Your task to perform on an android device: Open Amazon Image 0: 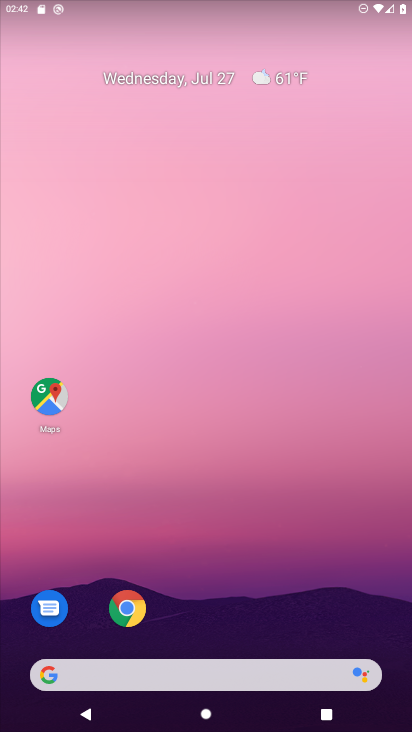
Step 0: click (133, 616)
Your task to perform on an android device: Open Amazon Image 1: 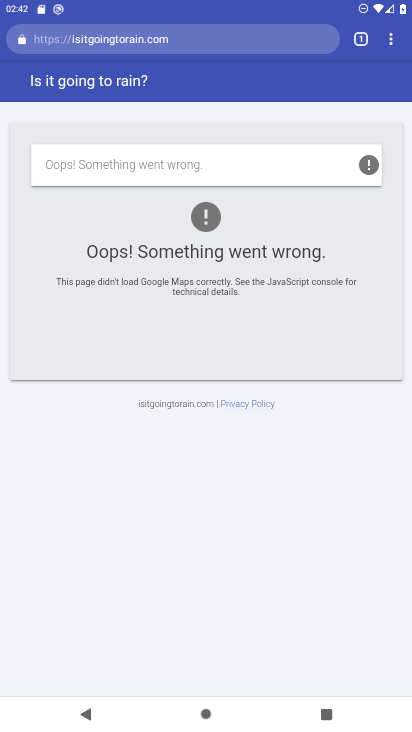
Step 1: click (366, 46)
Your task to perform on an android device: Open Amazon Image 2: 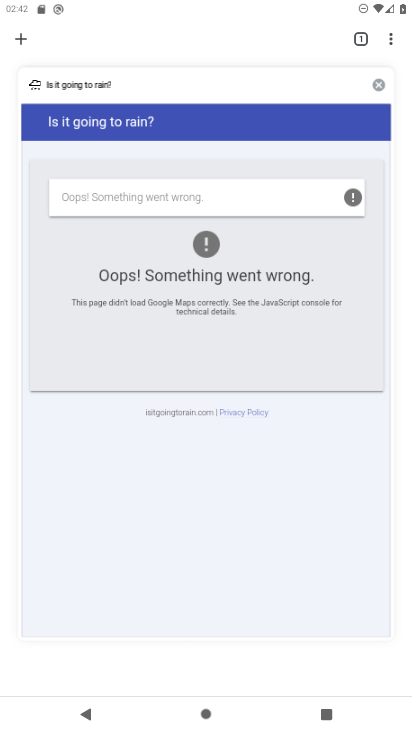
Step 2: click (25, 41)
Your task to perform on an android device: Open Amazon Image 3: 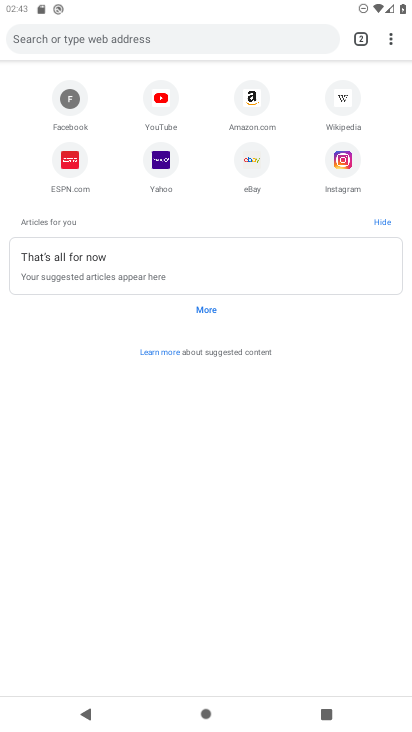
Step 3: click (251, 113)
Your task to perform on an android device: Open Amazon Image 4: 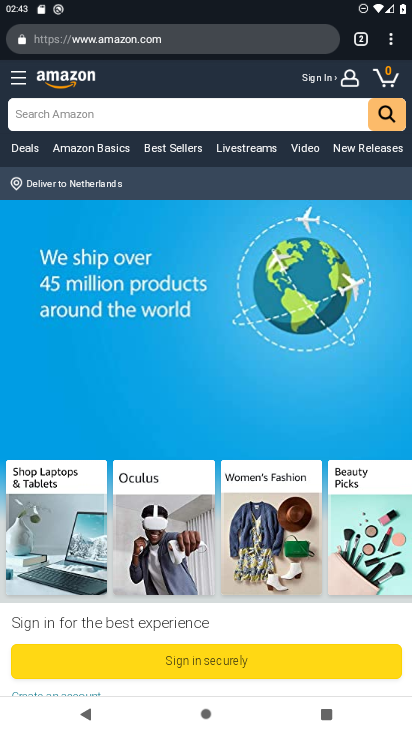
Step 4: task complete